Your task to perform on an android device: change timer sound Image 0: 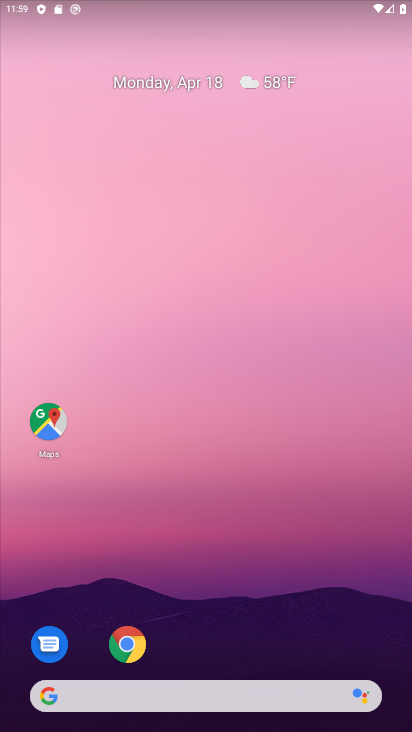
Step 0: drag from (275, 624) to (290, 96)
Your task to perform on an android device: change timer sound Image 1: 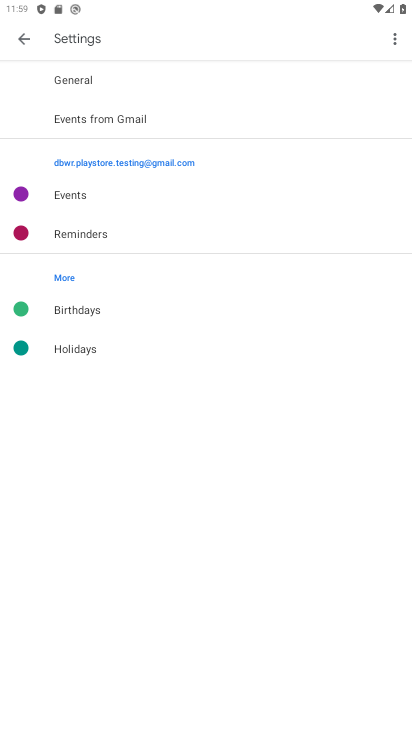
Step 1: press home button
Your task to perform on an android device: change timer sound Image 2: 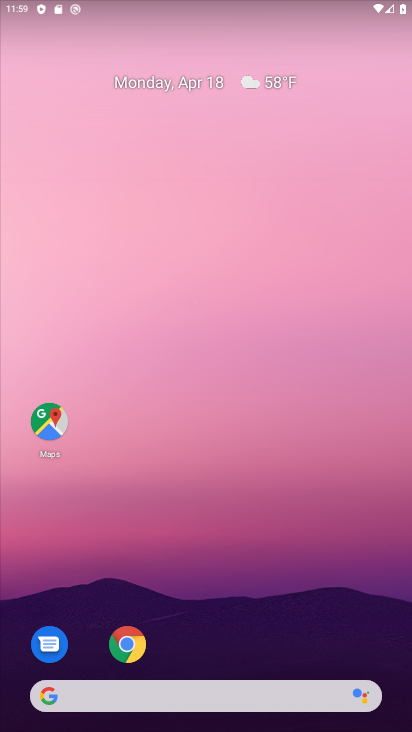
Step 2: drag from (235, 581) to (196, 223)
Your task to perform on an android device: change timer sound Image 3: 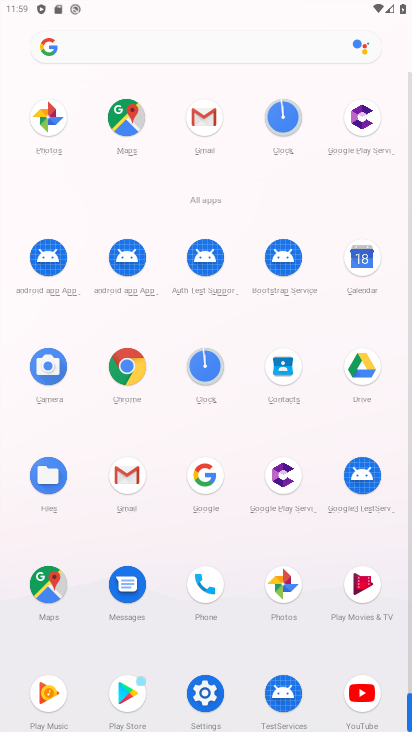
Step 3: click (200, 370)
Your task to perform on an android device: change timer sound Image 4: 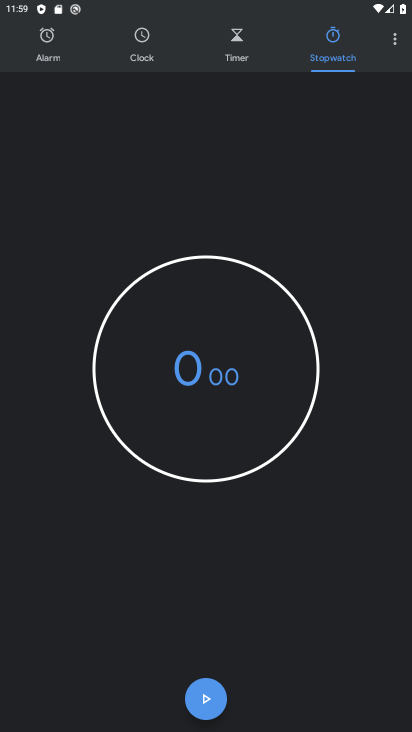
Step 4: click (390, 44)
Your task to perform on an android device: change timer sound Image 5: 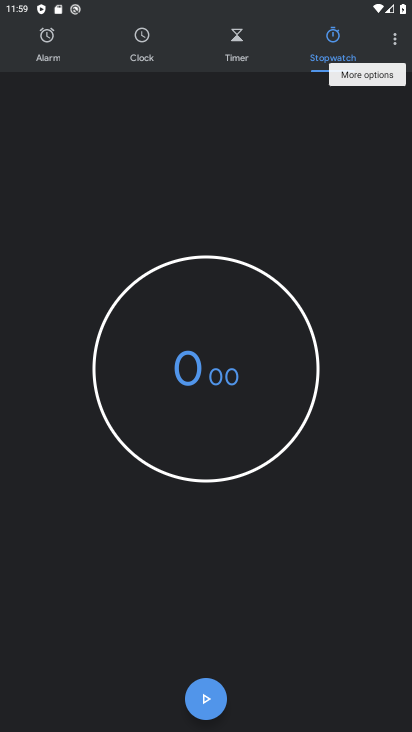
Step 5: click (393, 47)
Your task to perform on an android device: change timer sound Image 6: 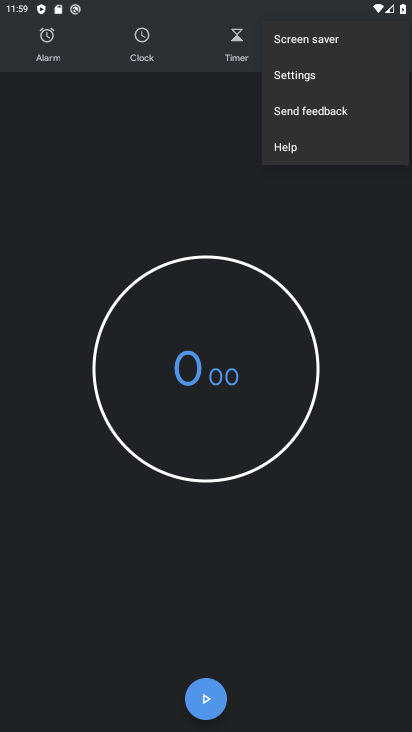
Step 6: click (317, 80)
Your task to perform on an android device: change timer sound Image 7: 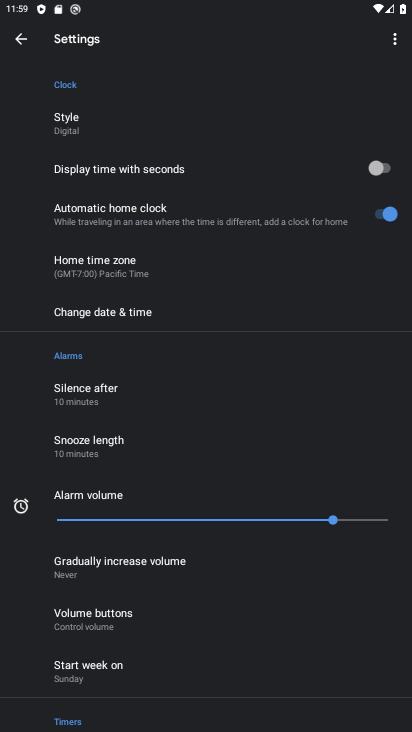
Step 7: drag from (151, 611) to (154, 342)
Your task to perform on an android device: change timer sound Image 8: 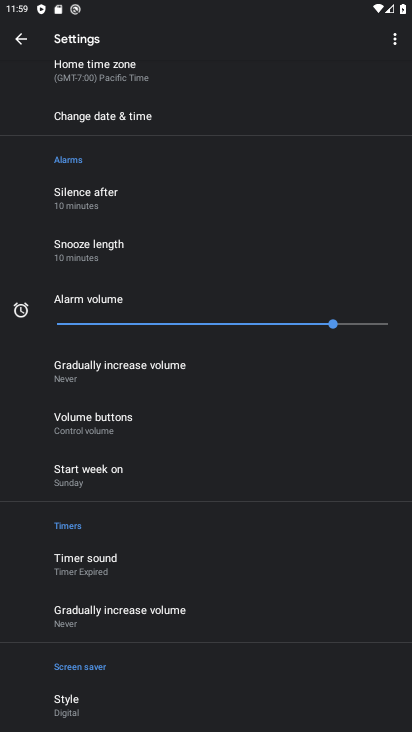
Step 8: click (116, 560)
Your task to perform on an android device: change timer sound Image 9: 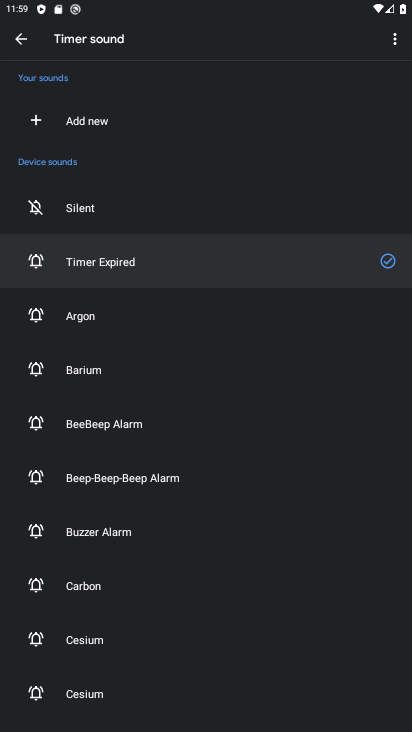
Step 9: click (276, 319)
Your task to perform on an android device: change timer sound Image 10: 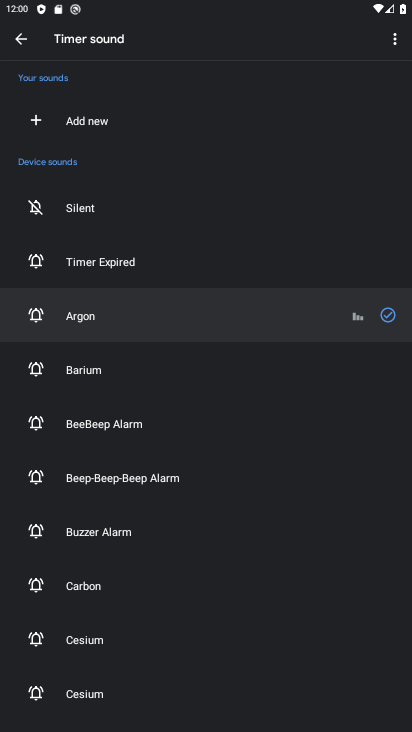
Step 10: task complete